Your task to perform on an android device: add a contact in the contacts app Image 0: 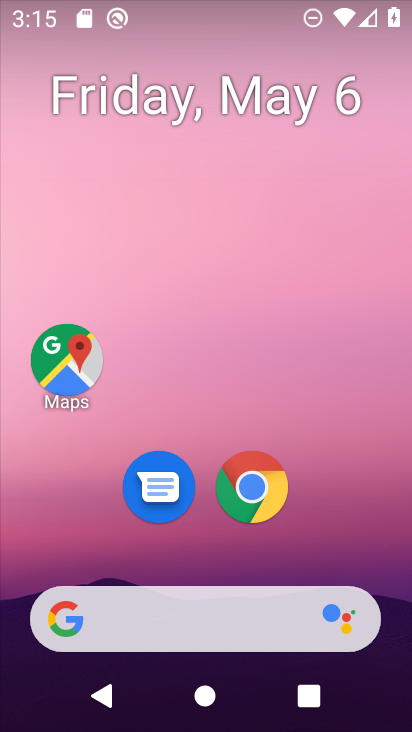
Step 0: drag from (324, 554) to (328, 41)
Your task to perform on an android device: add a contact in the contacts app Image 1: 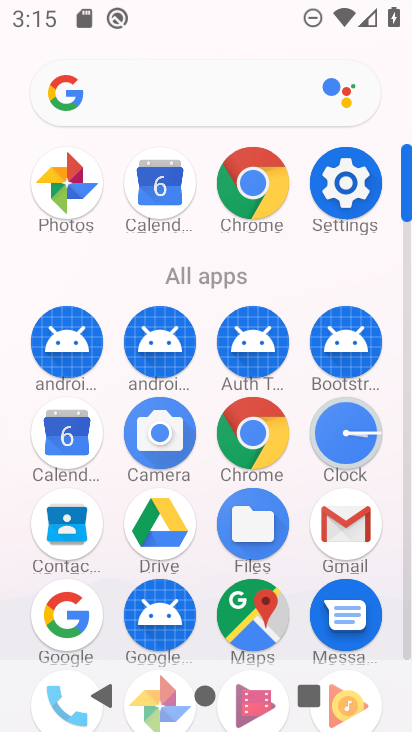
Step 1: click (77, 539)
Your task to perform on an android device: add a contact in the contacts app Image 2: 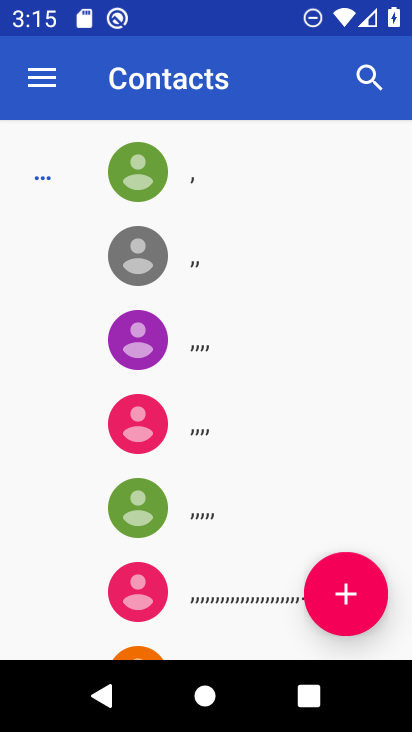
Step 2: click (343, 584)
Your task to perform on an android device: add a contact in the contacts app Image 3: 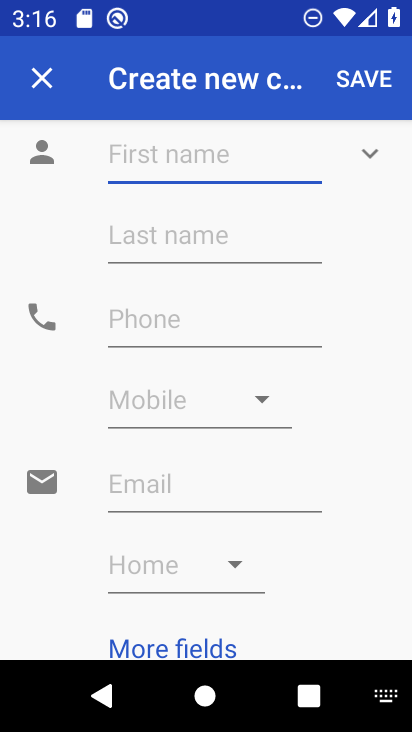
Step 3: type "hiuhkihujih"
Your task to perform on an android device: add a contact in the contacts app Image 4: 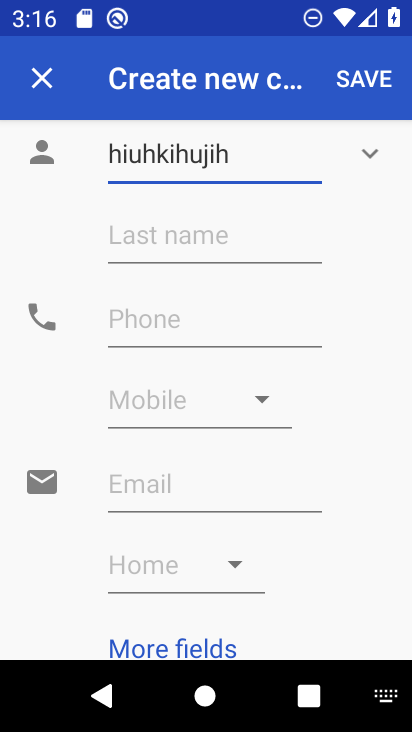
Step 4: click (227, 333)
Your task to perform on an android device: add a contact in the contacts app Image 5: 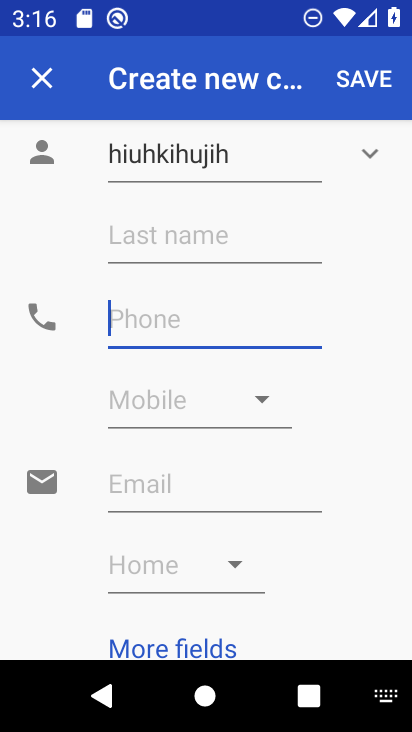
Step 5: type "6756788987"
Your task to perform on an android device: add a contact in the contacts app Image 6: 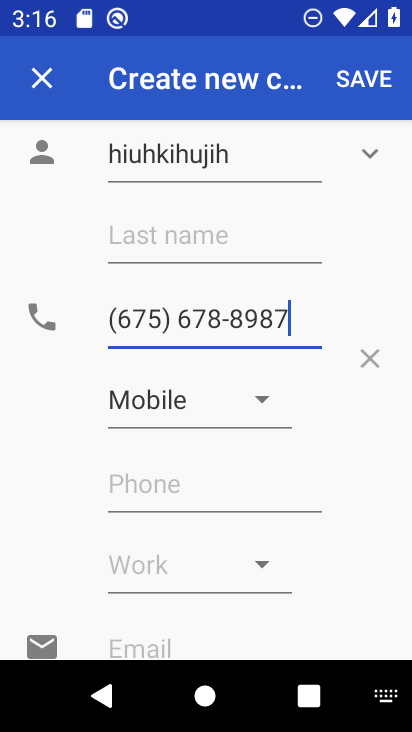
Step 6: click (338, 74)
Your task to perform on an android device: add a contact in the contacts app Image 7: 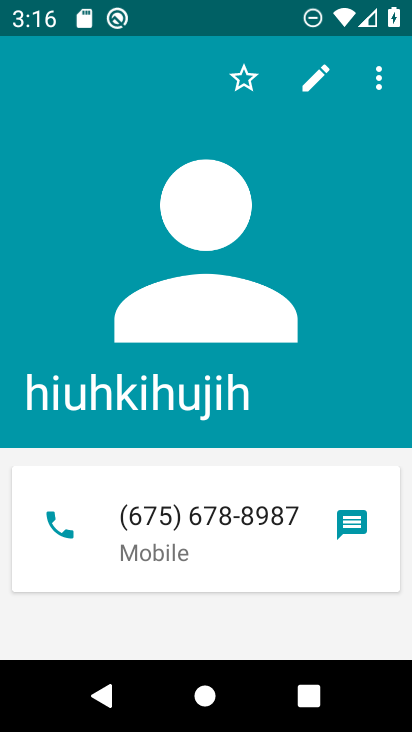
Step 7: task complete